Your task to perform on an android device: When is my next meeting? Image 0: 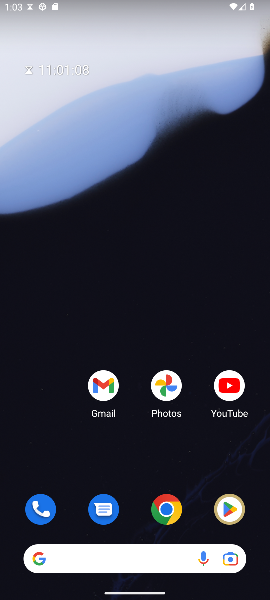
Step 0: drag from (135, 526) to (86, 54)
Your task to perform on an android device: When is my next meeting? Image 1: 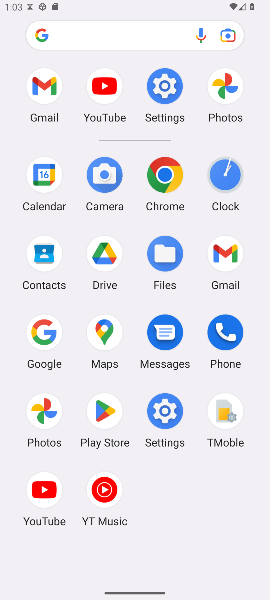
Step 1: click (44, 177)
Your task to perform on an android device: When is my next meeting? Image 2: 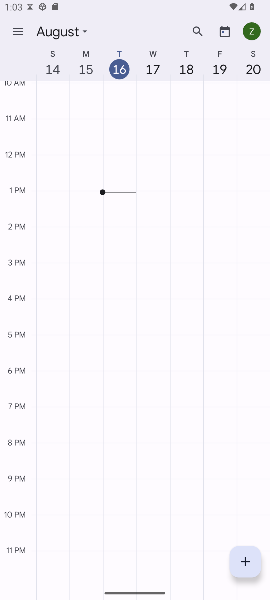
Step 2: click (19, 29)
Your task to perform on an android device: When is my next meeting? Image 3: 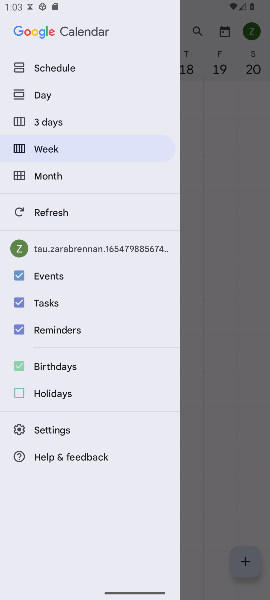
Step 3: click (40, 70)
Your task to perform on an android device: When is my next meeting? Image 4: 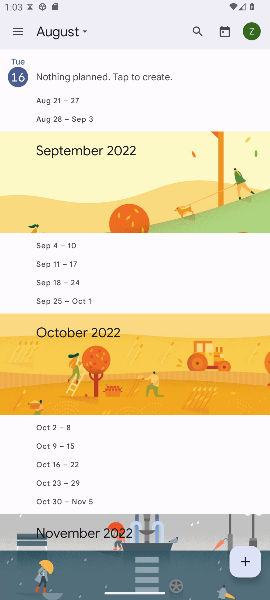
Step 4: task complete